Your task to perform on an android device: move an email to a new category in the gmail app Image 0: 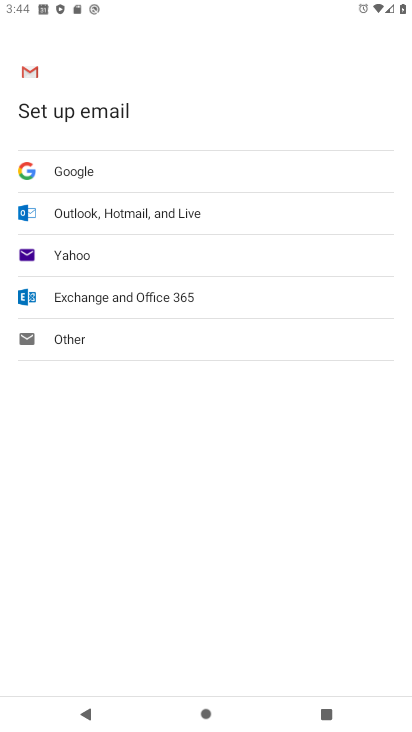
Step 0: press home button
Your task to perform on an android device: move an email to a new category in the gmail app Image 1: 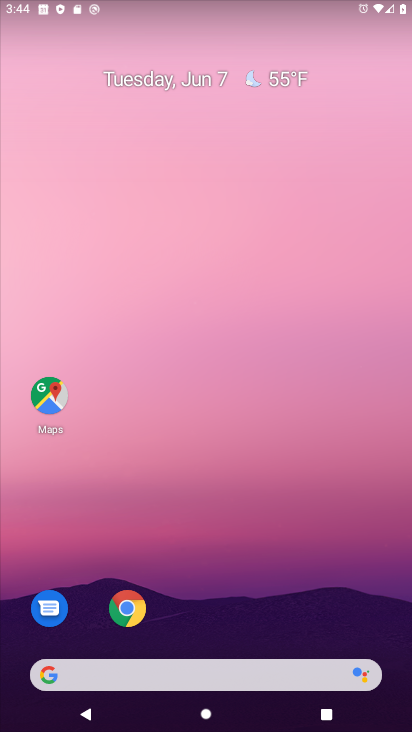
Step 1: drag from (196, 658) to (222, 0)
Your task to perform on an android device: move an email to a new category in the gmail app Image 2: 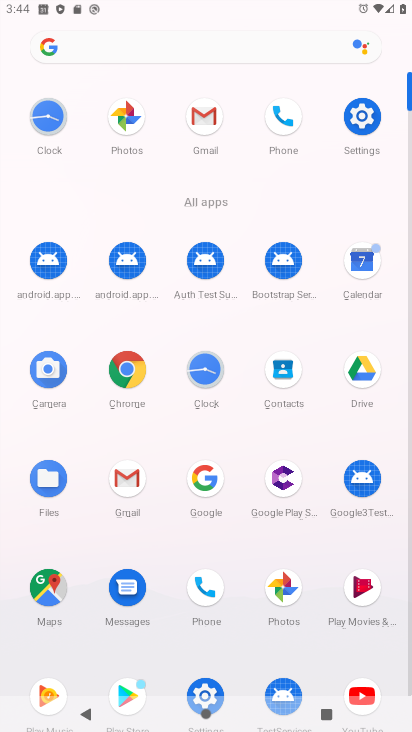
Step 2: click (135, 476)
Your task to perform on an android device: move an email to a new category in the gmail app Image 3: 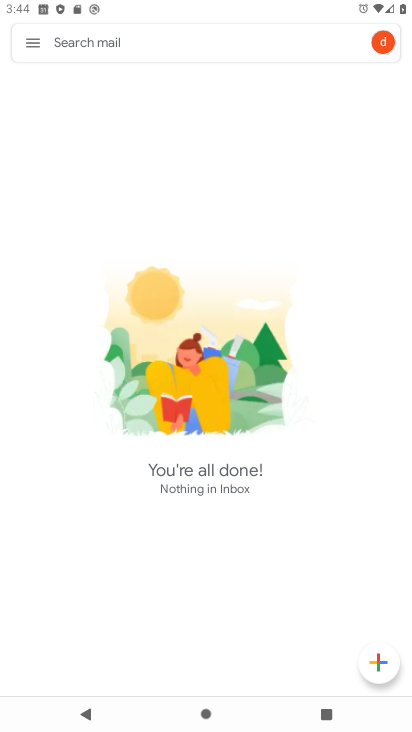
Step 3: click (35, 49)
Your task to perform on an android device: move an email to a new category in the gmail app Image 4: 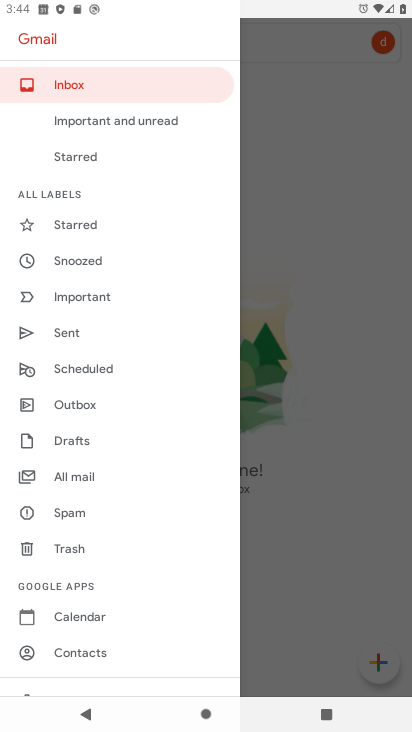
Step 4: click (64, 267)
Your task to perform on an android device: move an email to a new category in the gmail app Image 5: 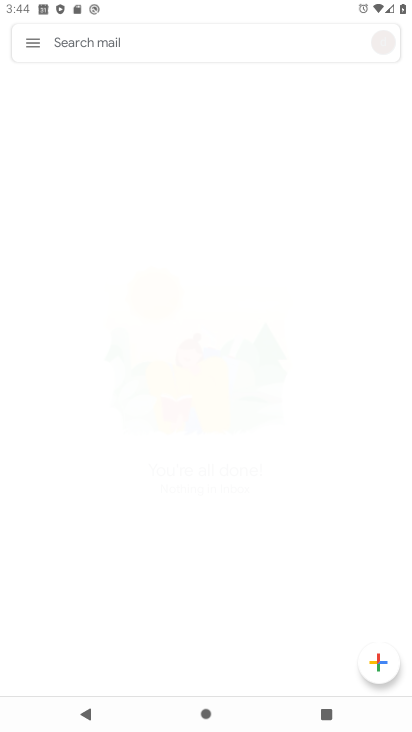
Step 5: task complete